Your task to perform on an android device: What's the weather today? Image 0: 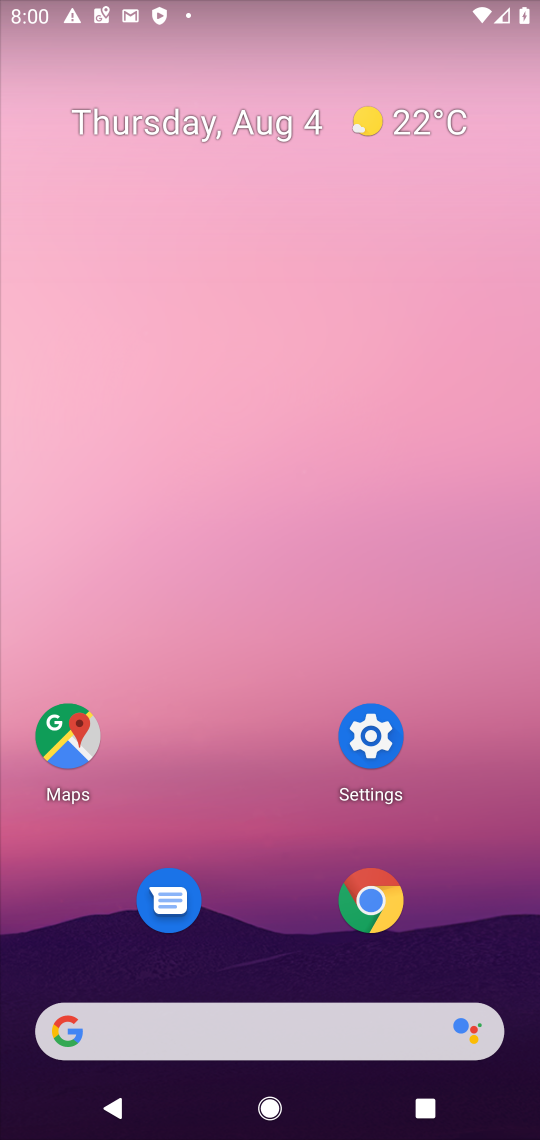
Step 0: click (146, 1024)
Your task to perform on an android device: What's the weather today? Image 1: 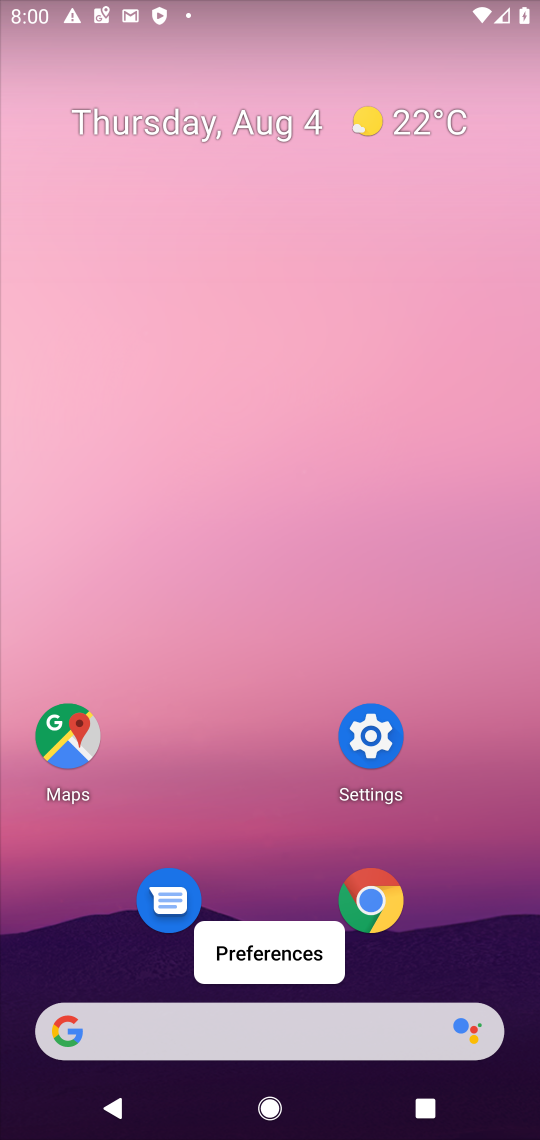
Step 1: click (166, 1029)
Your task to perform on an android device: What's the weather today? Image 2: 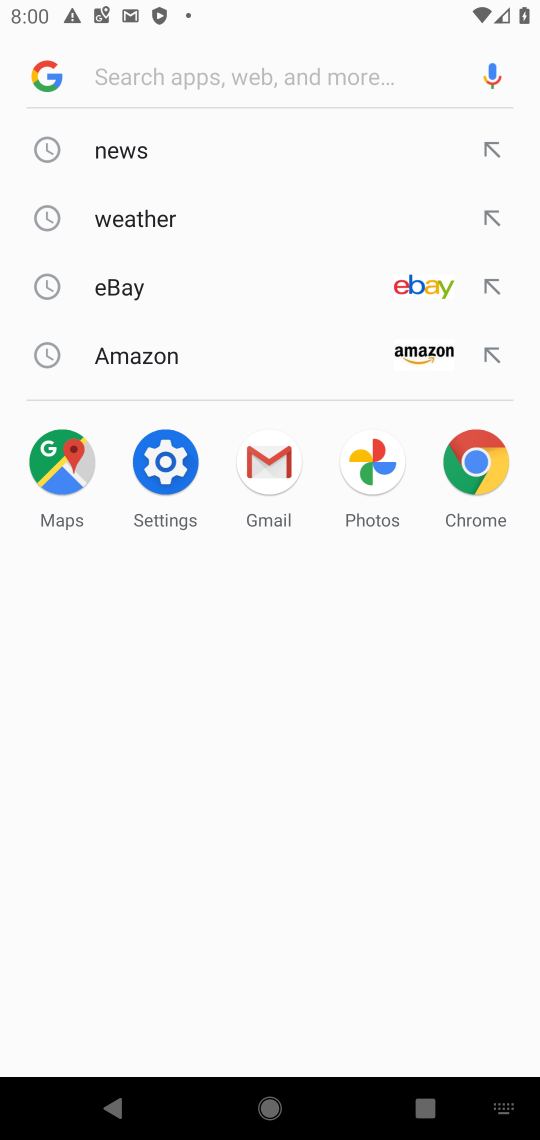
Step 2: click (149, 215)
Your task to perform on an android device: What's the weather today? Image 3: 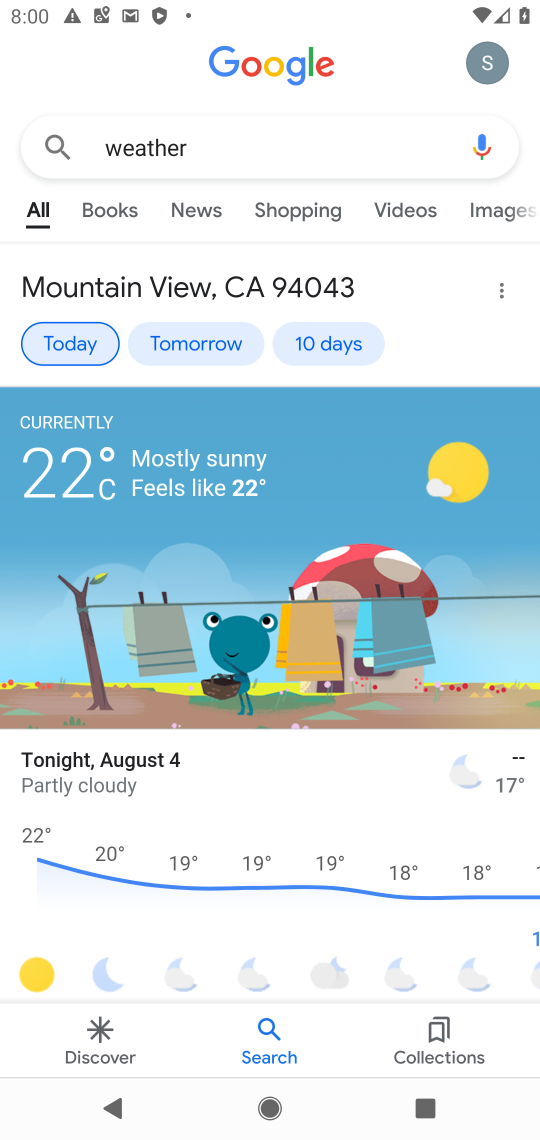
Step 3: task complete